Your task to perform on an android device: Open Reddit.com Image 0: 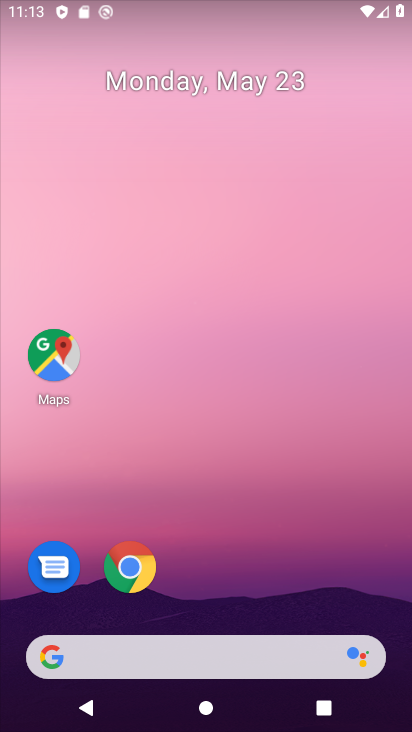
Step 0: press home button
Your task to perform on an android device: Open Reddit.com Image 1: 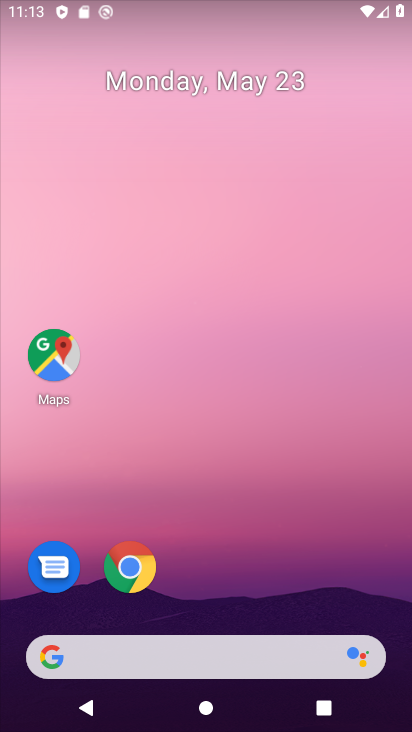
Step 1: drag from (340, 598) to (284, 100)
Your task to perform on an android device: Open Reddit.com Image 2: 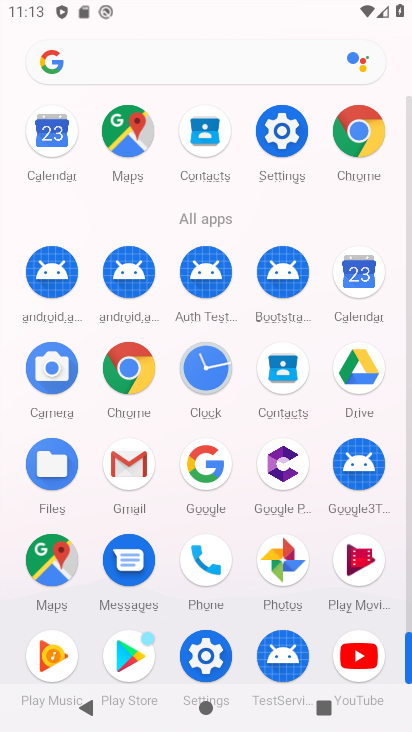
Step 2: click (355, 145)
Your task to perform on an android device: Open Reddit.com Image 3: 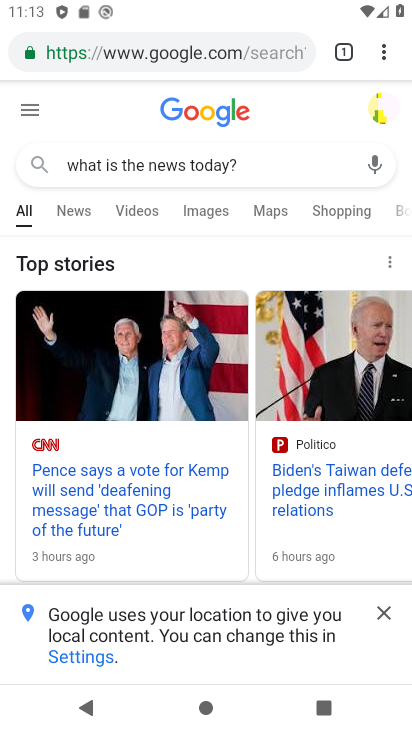
Step 3: click (183, 156)
Your task to perform on an android device: Open Reddit.com Image 4: 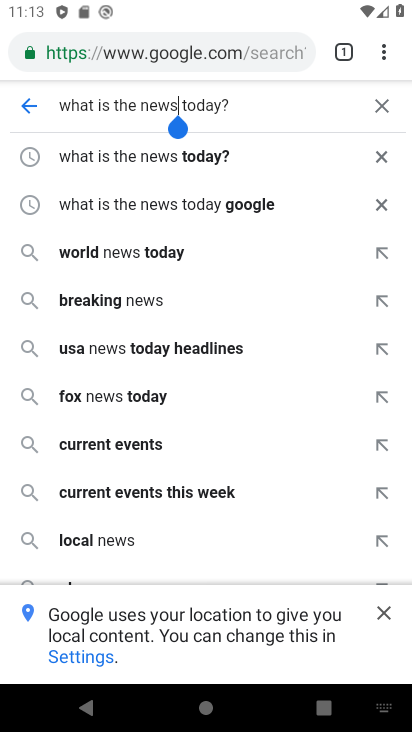
Step 4: click (168, 61)
Your task to perform on an android device: Open Reddit.com Image 5: 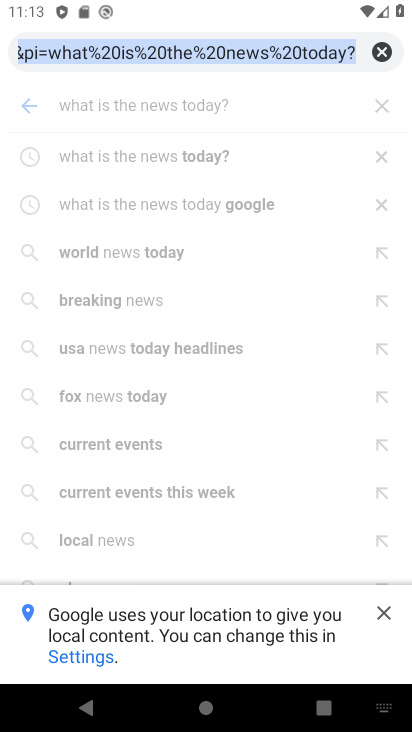
Step 5: click (373, 50)
Your task to perform on an android device: Open Reddit.com Image 6: 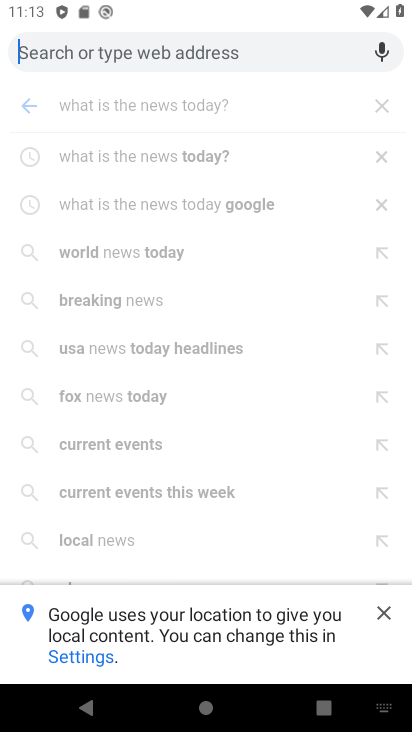
Step 6: type "reddit.com"
Your task to perform on an android device: Open Reddit.com Image 7: 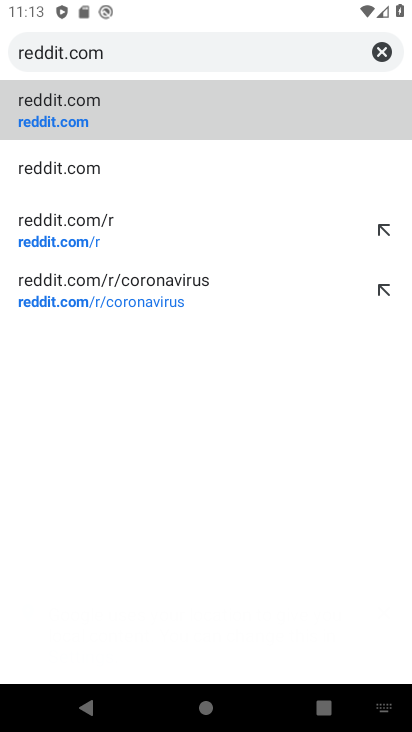
Step 7: click (137, 111)
Your task to perform on an android device: Open Reddit.com Image 8: 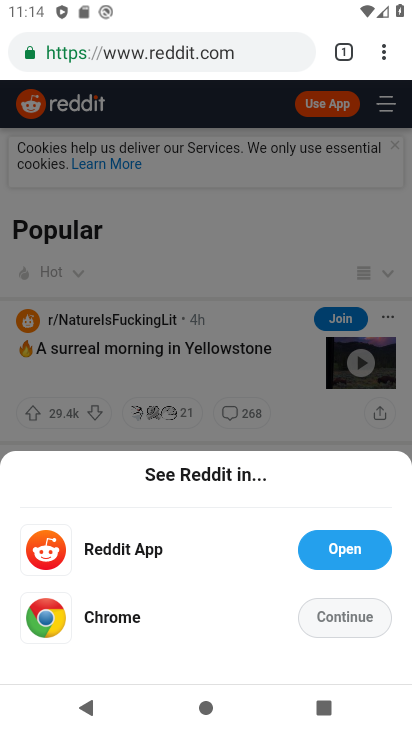
Step 8: task complete